Your task to perform on an android device: Go to internet settings Image 0: 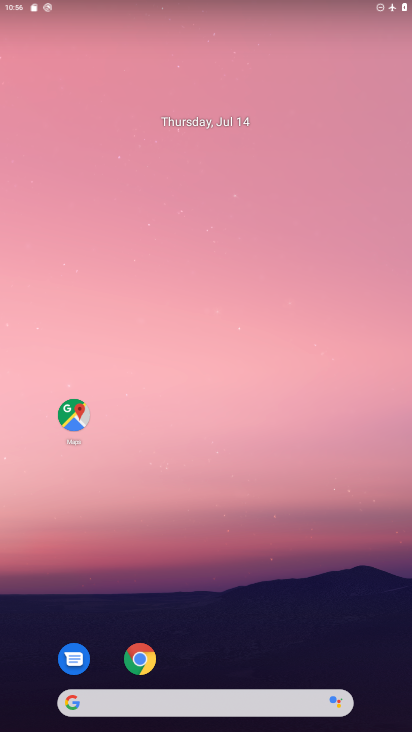
Step 0: drag from (273, 616) to (237, 91)
Your task to perform on an android device: Go to internet settings Image 1: 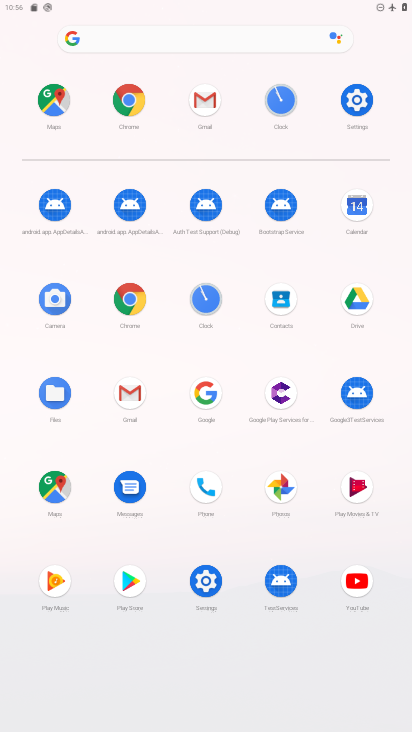
Step 1: click (365, 96)
Your task to perform on an android device: Go to internet settings Image 2: 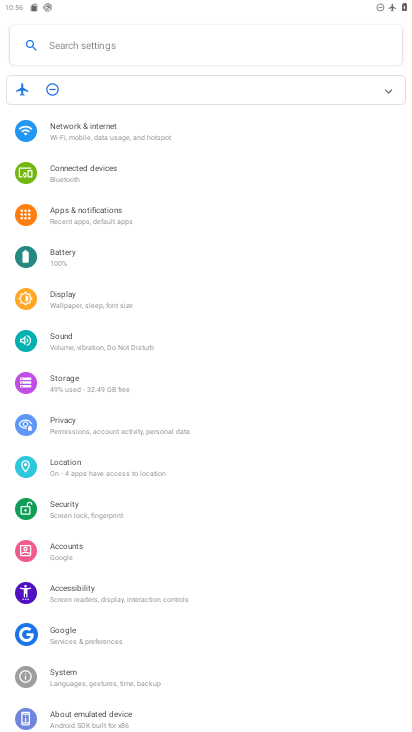
Step 2: click (90, 141)
Your task to perform on an android device: Go to internet settings Image 3: 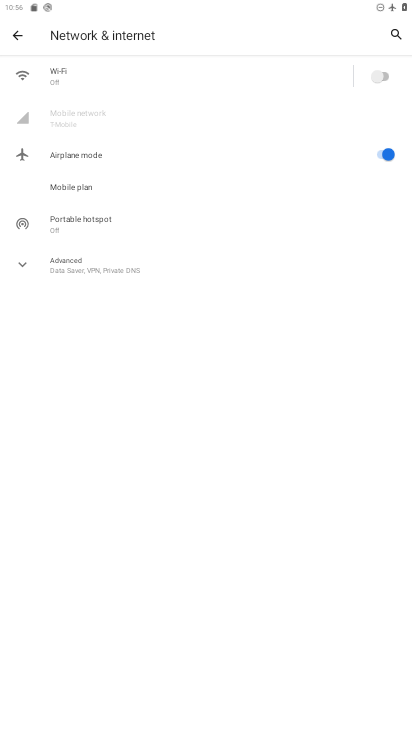
Step 3: click (74, 258)
Your task to perform on an android device: Go to internet settings Image 4: 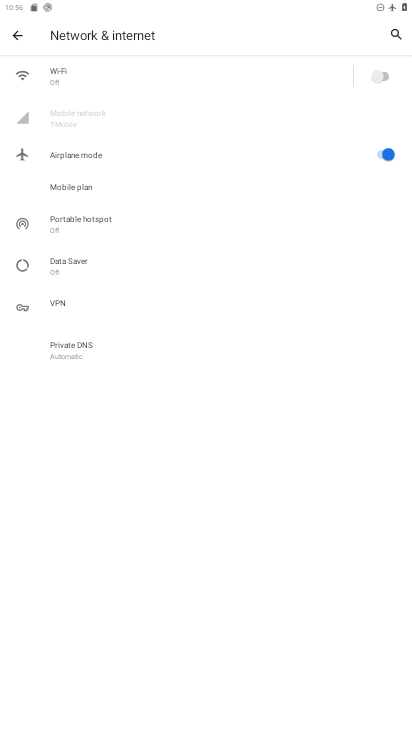
Step 4: task complete